Your task to perform on an android device: turn off location Image 0: 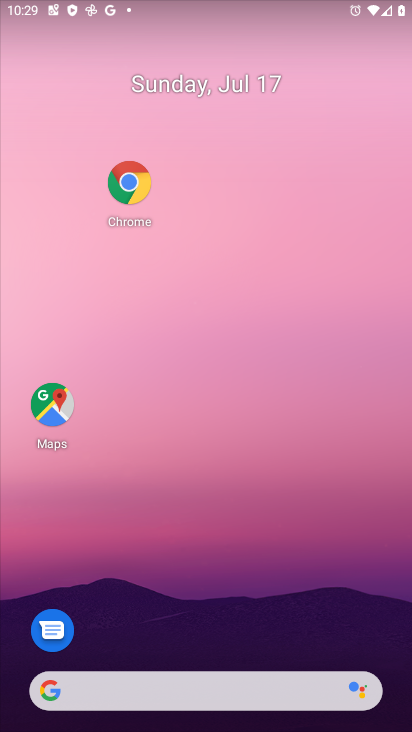
Step 0: drag from (182, 597) to (184, 189)
Your task to perform on an android device: turn off location Image 1: 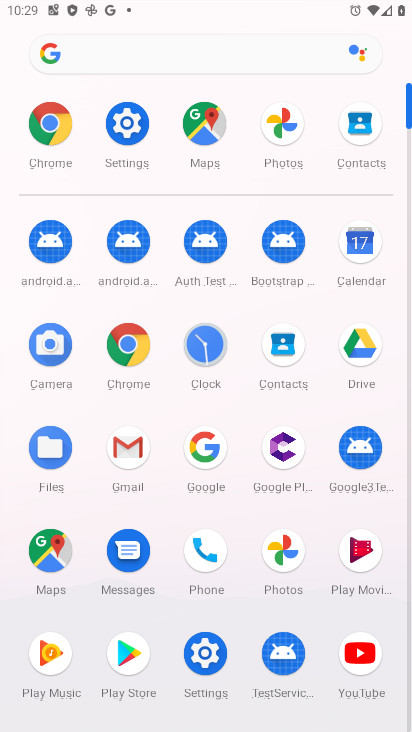
Step 1: click (125, 133)
Your task to perform on an android device: turn off location Image 2: 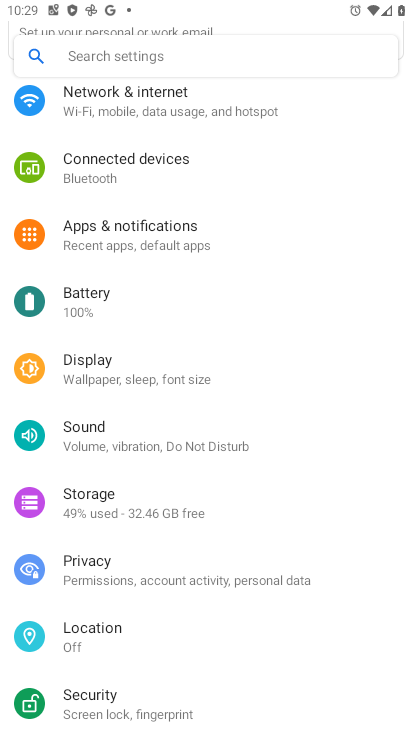
Step 2: click (64, 635)
Your task to perform on an android device: turn off location Image 3: 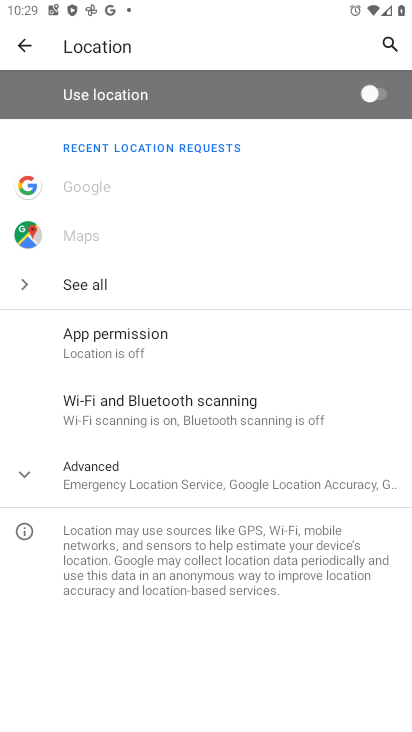
Step 3: task complete